Your task to perform on an android device: Open the phone app and click the voicemail tab. Image 0: 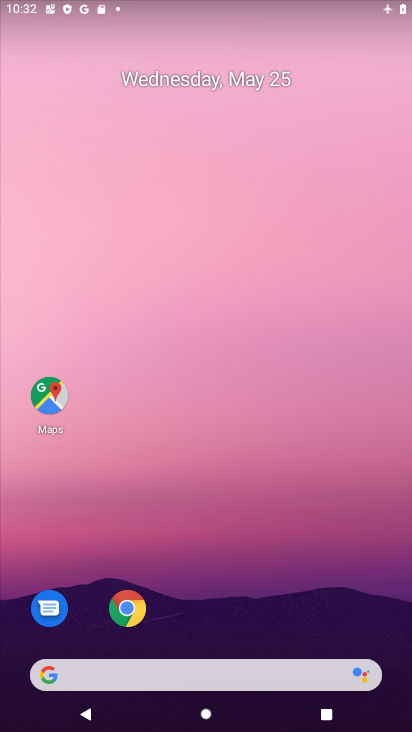
Step 0: drag from (240, 648) to (250, 3)
Your task to perform on an android device: Open the phone app and click the voicemail tab. Image 1: 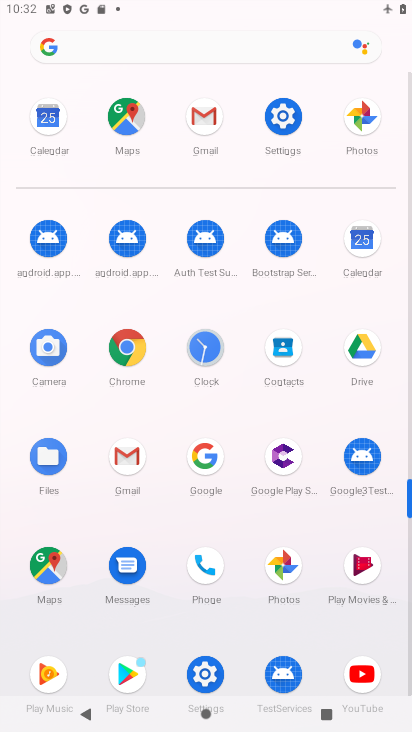
Step 1: click (203, 565)
Your task to perform on an android device: Open the phone app and click the voicemail tab. Image 2: 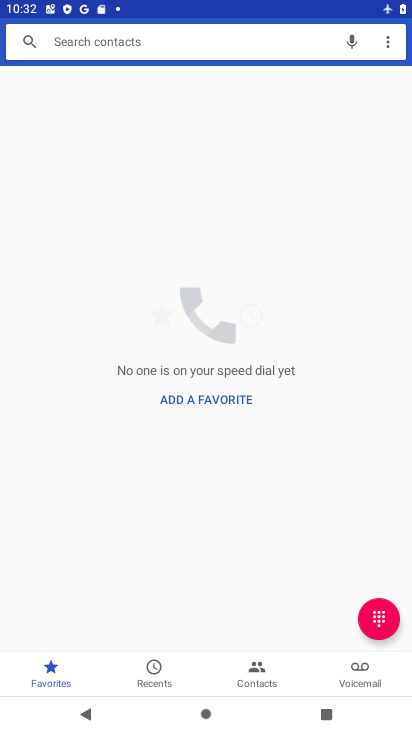
Step 2: click (356, 687)
Your task to perform on an android device: Open the phone app and click the voicemail tab. Image 3: 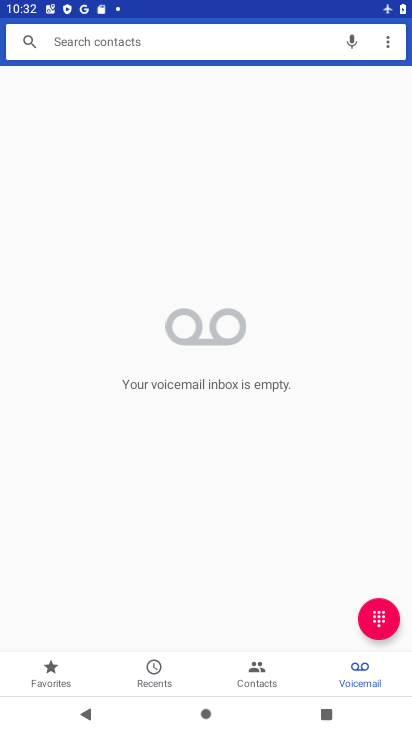
Step 3: task complete